Your task to perform on an android device: Go to privacy settings Image 0: 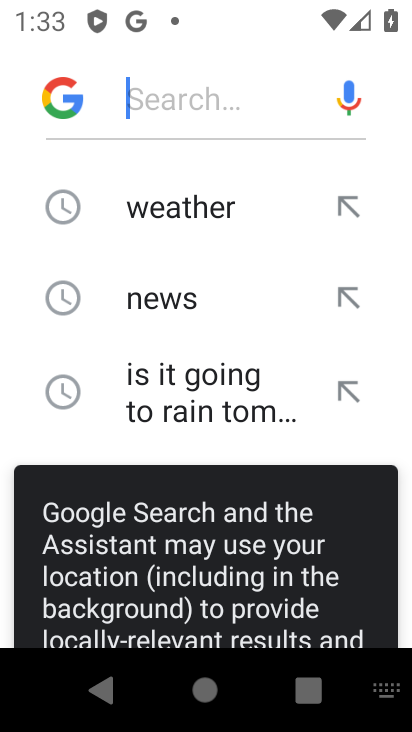
Step 0: press home button
Your task to perform on an android device: Go to privacy settings Image 1: 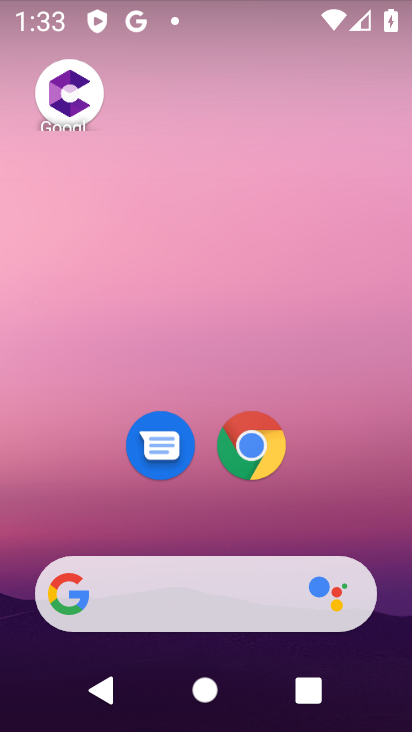
Step 1: drag from (328, 496) to (236, 112)
Your task to perform on an android device: Go to privacy settings Image 2: 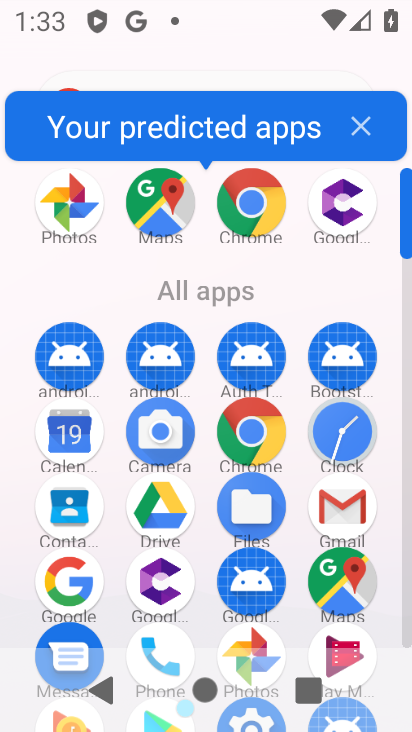
Step 2: drag from (211, 608) to (142, 214)
Your task to perform on an android device: Go to privacy settings Image 3: 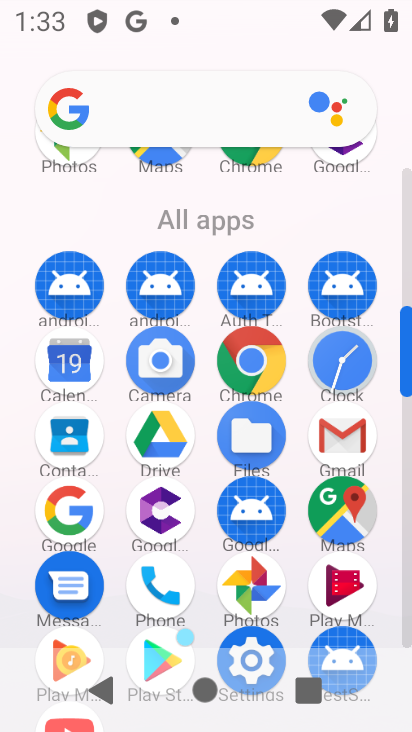
Step 3: drag from (206, 533) to (205, 225)
Your task to perform on an android device: Go to privacy settings Image 4: 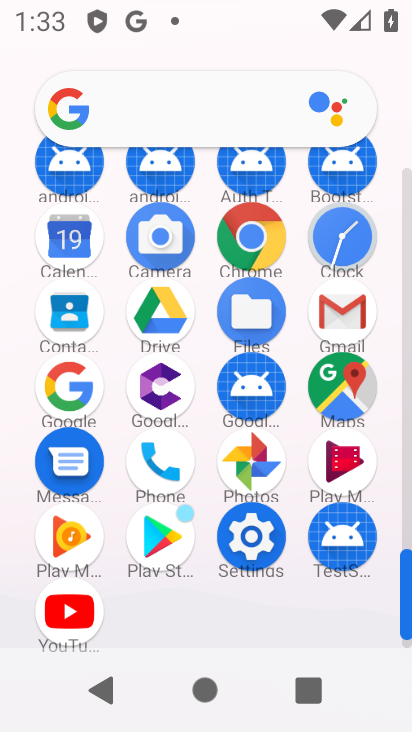
Step 4: click (252, 535)
Your task to perform on an android device: Go to privacy settings Image 5: 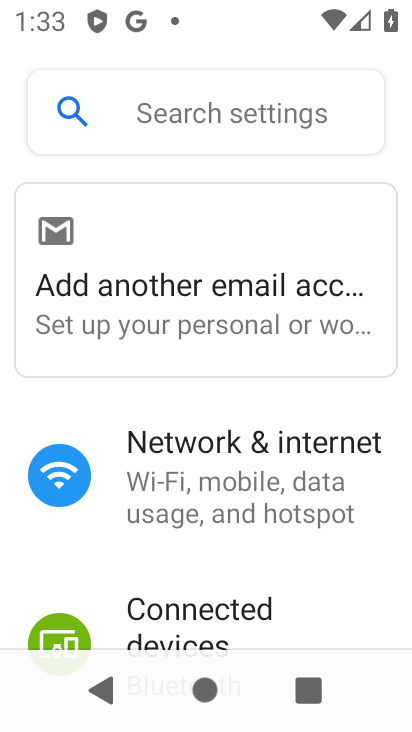
Step 5: drag from (272, 547) to (190, 198)
Your task to perform on an android device: Go to privacy settings Image 6: 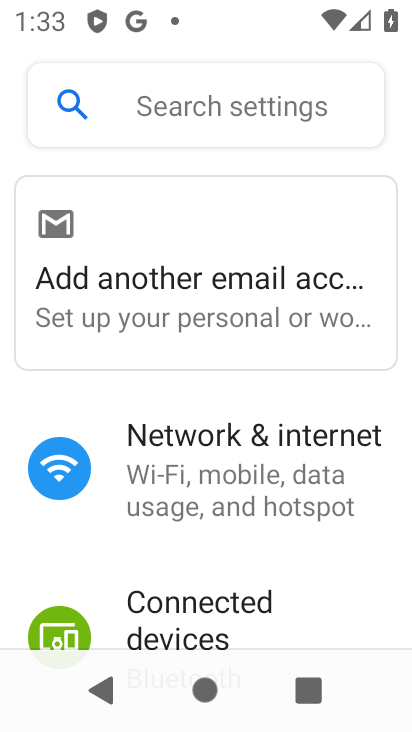
Step 6: drag from (216, 527) to (177, 229)
Your task to perform on an android device: Go to privacy settings Image 7: 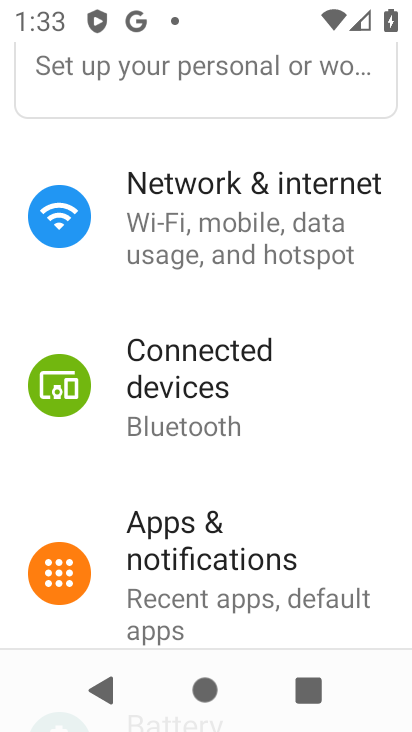
Step 7: drag from (185, 470) to (149, 128)
Your task to perform on an android device: Go to privacy settings Image 8: 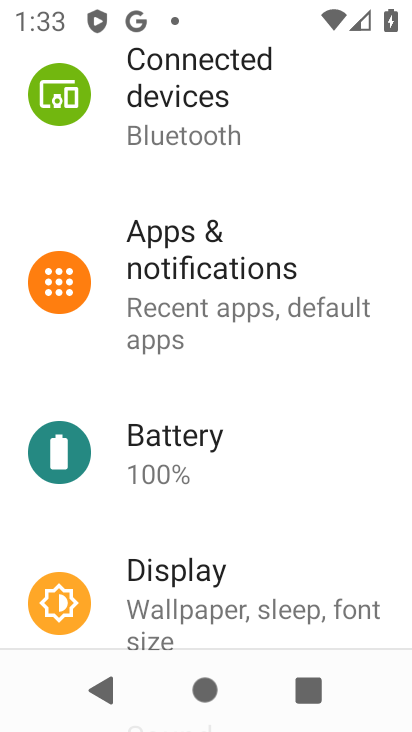
Step 8: drag from (202, 522) to (178, 194)
Your task to perform on an android device: Go to privacy settings Image 9: 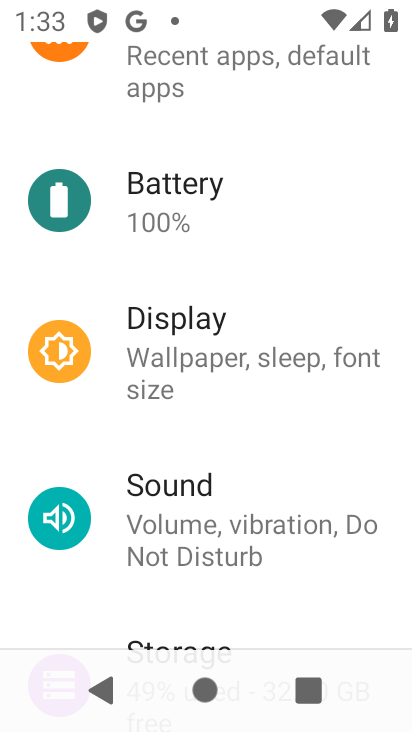
Step 9: drag from (151, 569) to (124, 248)
Your task to perform on an android device: Go to privacy settings Image 10: 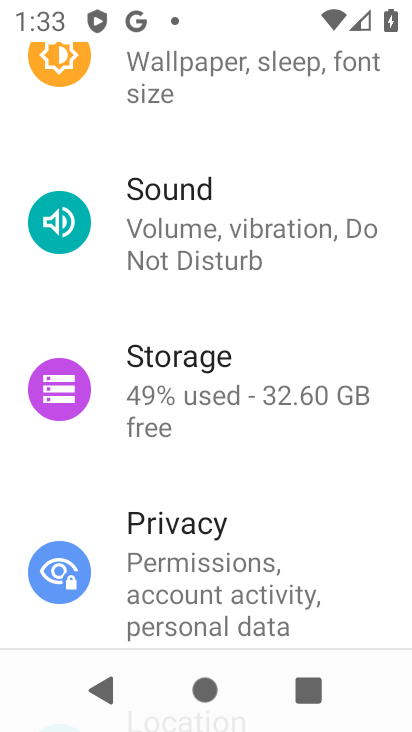
Step 10: click (187, 559)
Your task to perform on an android device: Go to privacy settings Image 11: 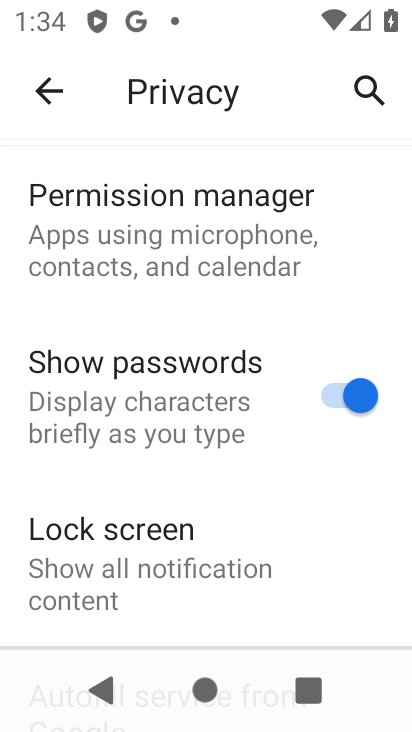
Step 11: task complete